Your task to perform on an android device: see sites visited before in the chrome app Image 0: 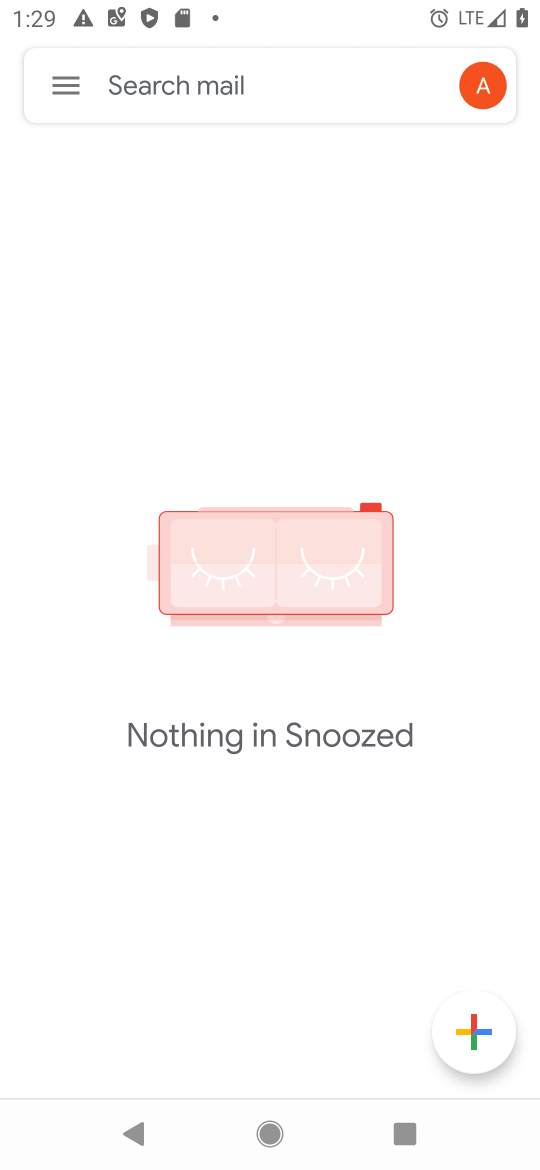
Step 0: press home button
Your task to perform on an android device: see sites visited before in the chrome app Image 1: 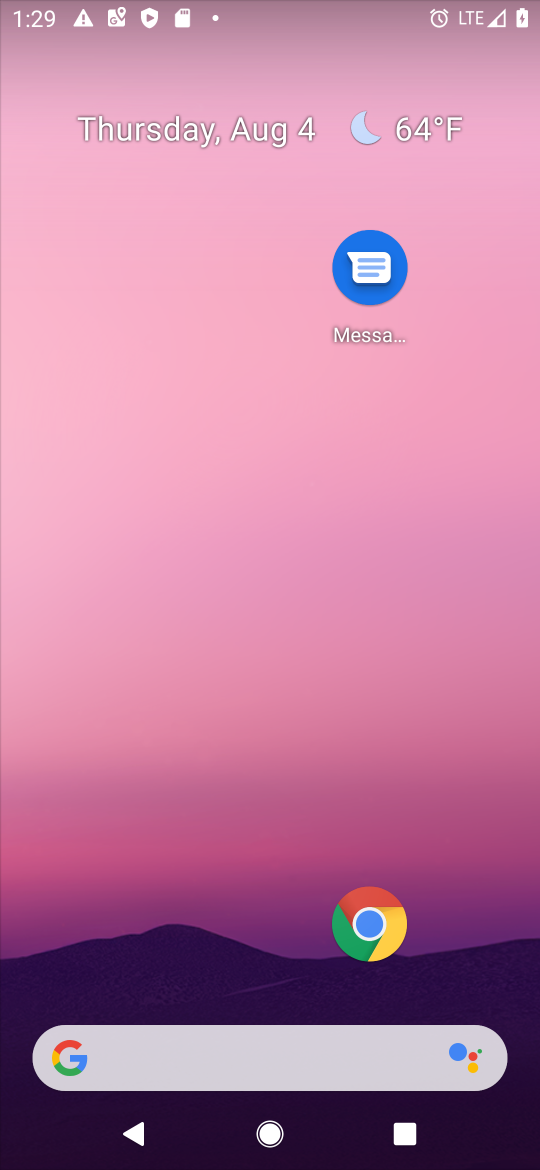
Step 1: click (350, 932)
Your task to perform on an android device: see sites visited before in the chrome app Image 2: 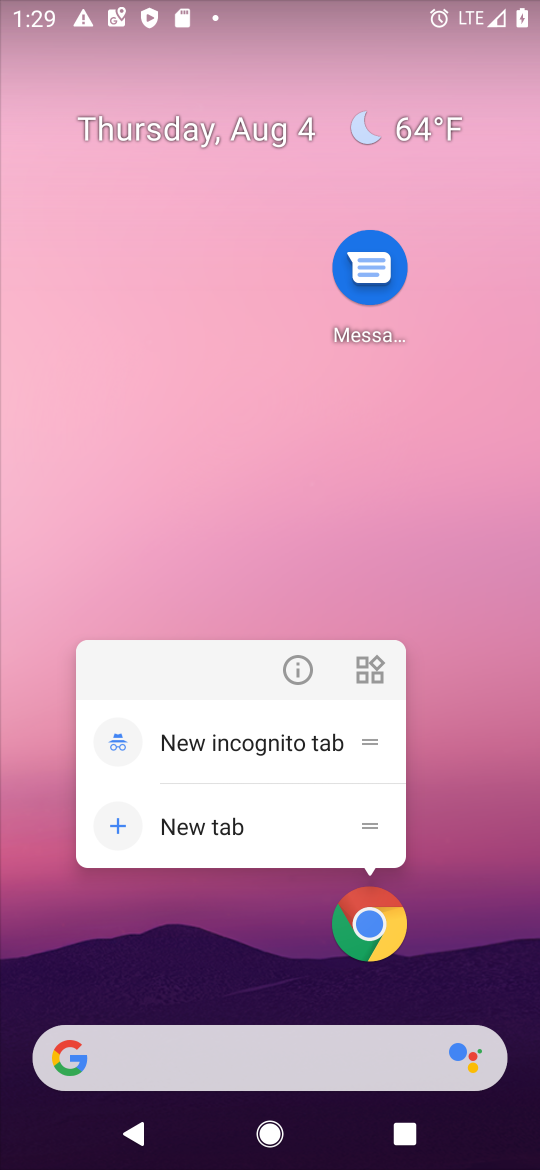
Step 2: click (353, 904)
Your task to perform on an android device: see sites visited before in the chrome app Image 3: 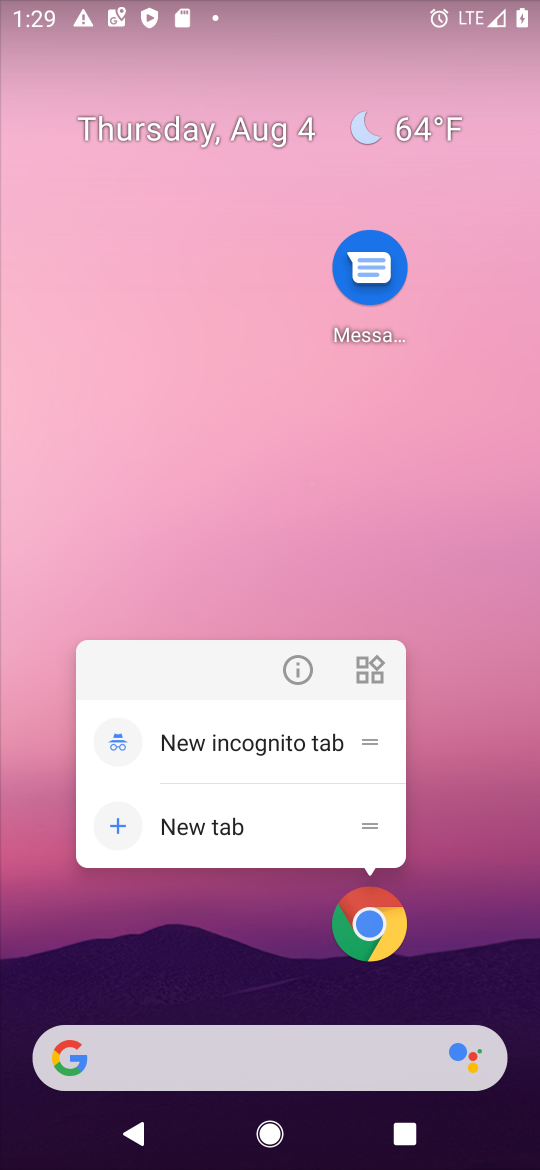
Step 3: click (345, 901)
Your task to perform on an android device: see sites visited before in the chrome app Image 4: 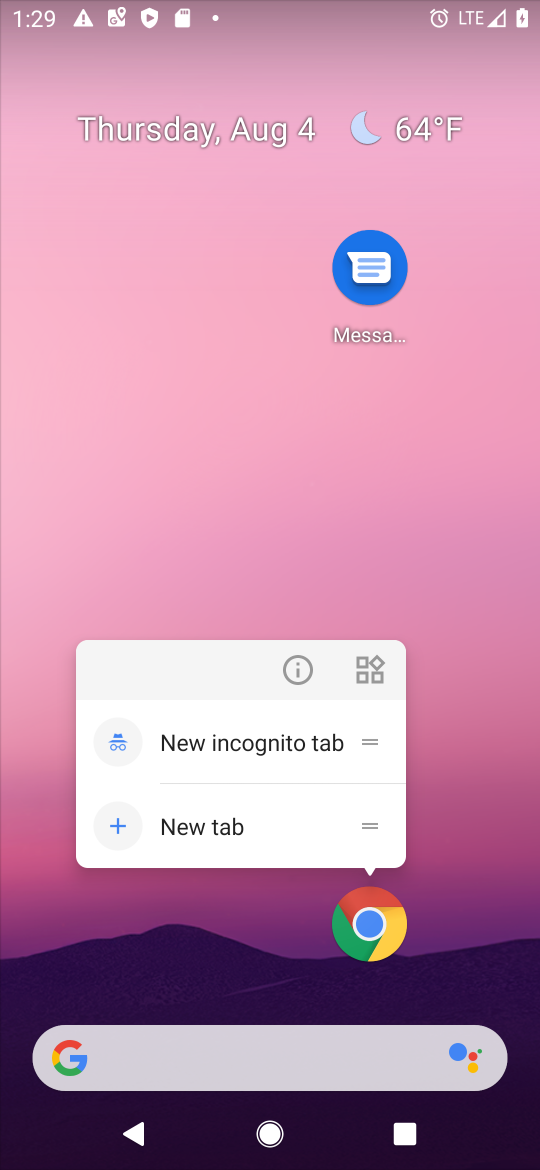
Step 4: click (371, 903)
Your task to perform on an android device: see sites visited before in the chrome app Image 5: 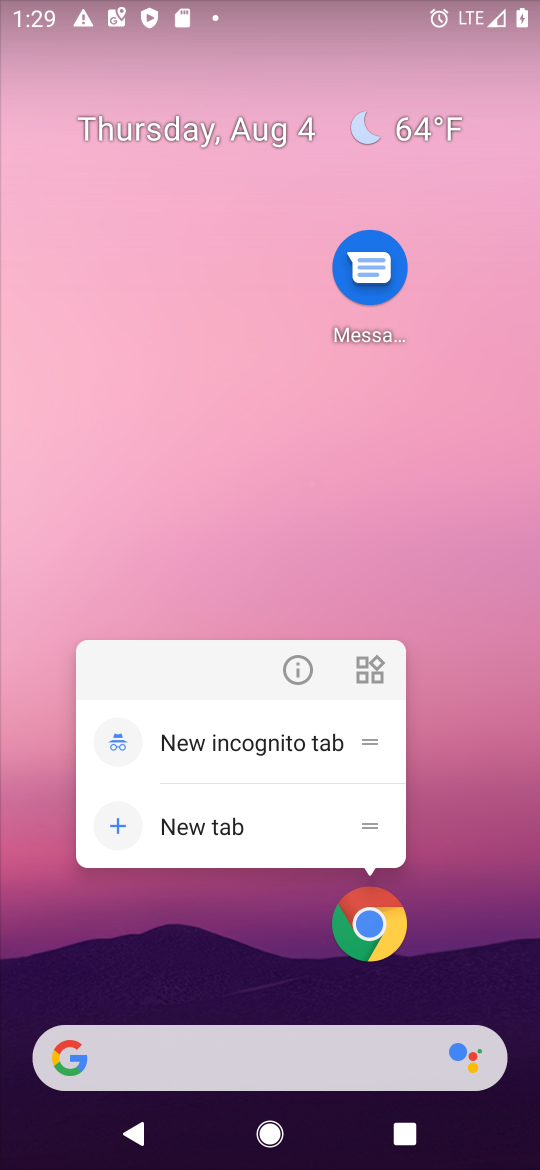
Step 5: click (366, 901)
Your task to perform on an android device: see sites visited before in the chrome app Image 6: 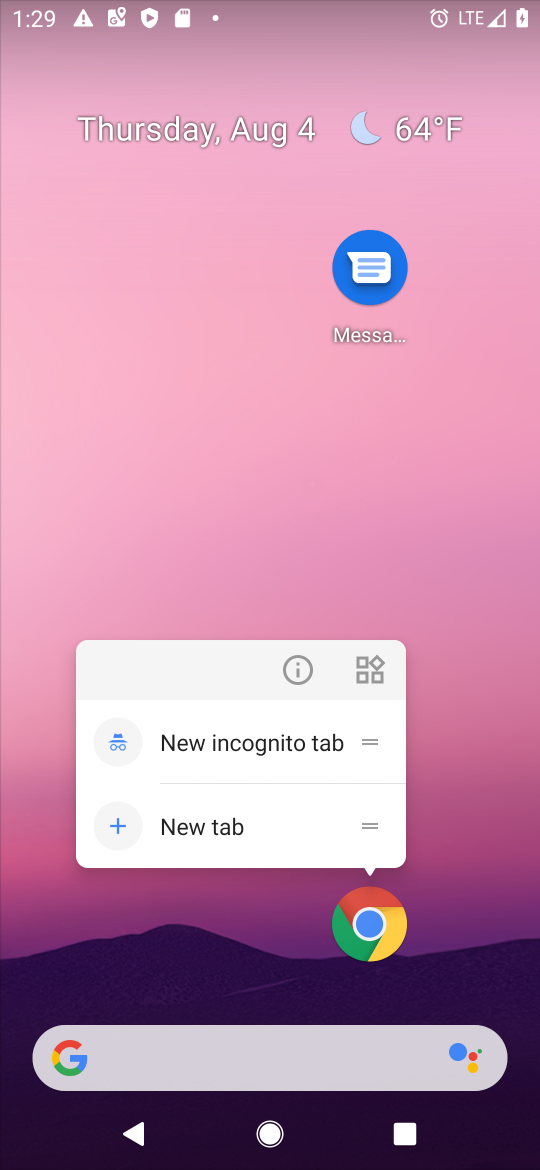
Step 6: click (387, 907)
Your task to perform on an android device: see sites visited before in the chrome app Image 7: 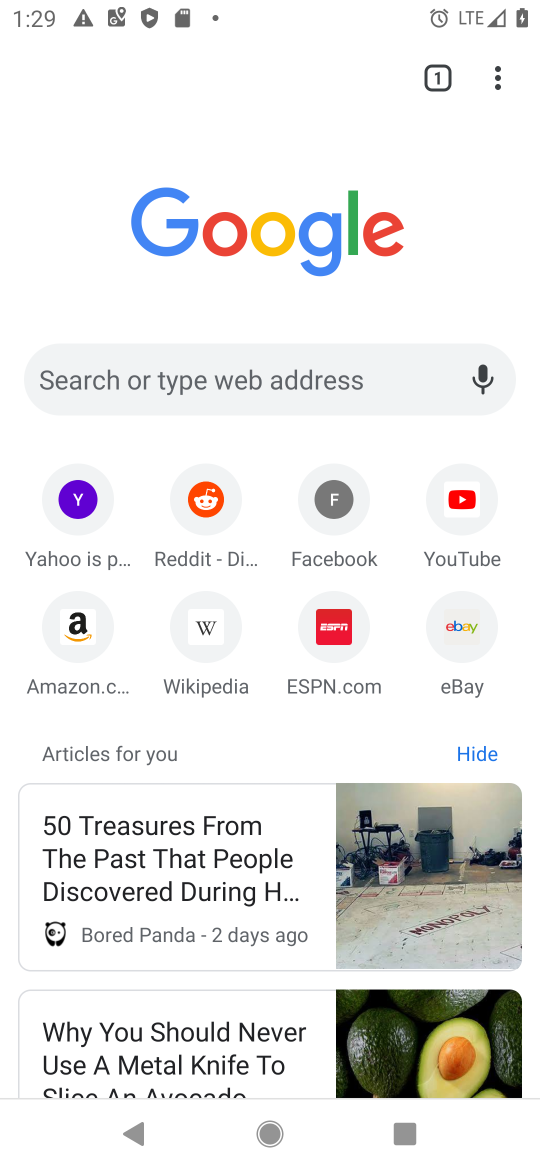
Step 7: click (503, 73)
Your task to perform on an android device: see sites visited before in the chrome app Image 8: 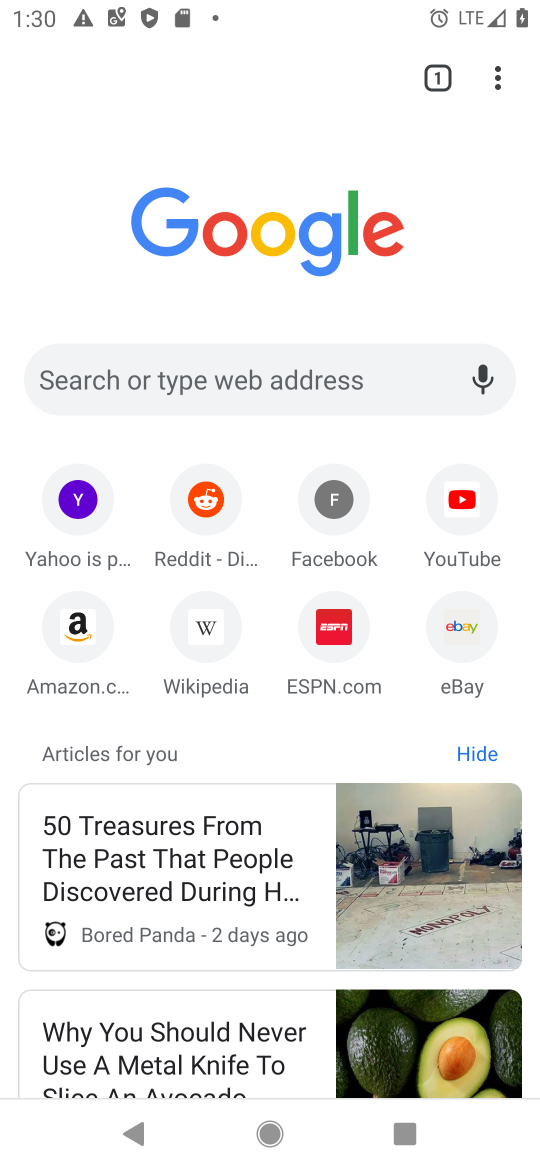
Step 8: click (500, 73)
Your task to perform on an android device: see sites visited before in the chrome app Image 9: 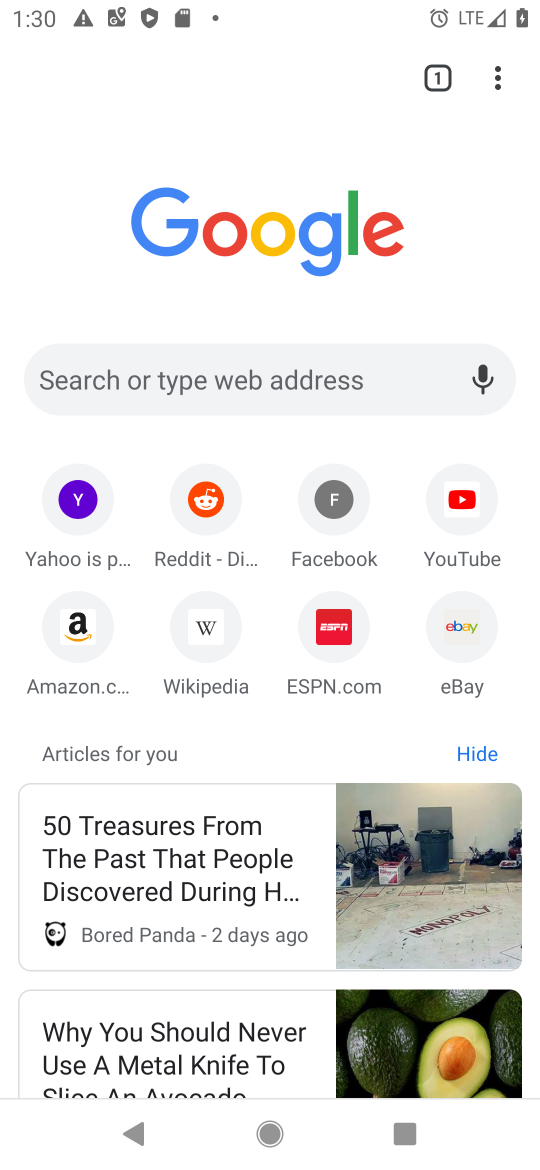
Step 9: click (501, 73)
Your task to perform on an android device: see sites visited before in the chrome app Image 10: 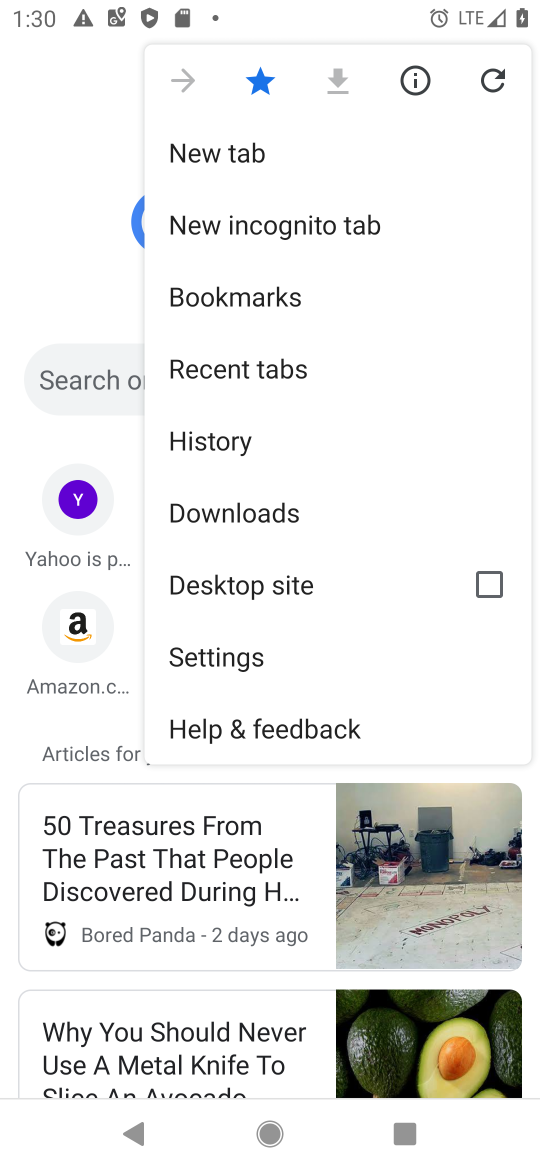
Step 10: click (193, 658)
Your task to perform on an android device: see sites visited before in the chrome app Image 11: 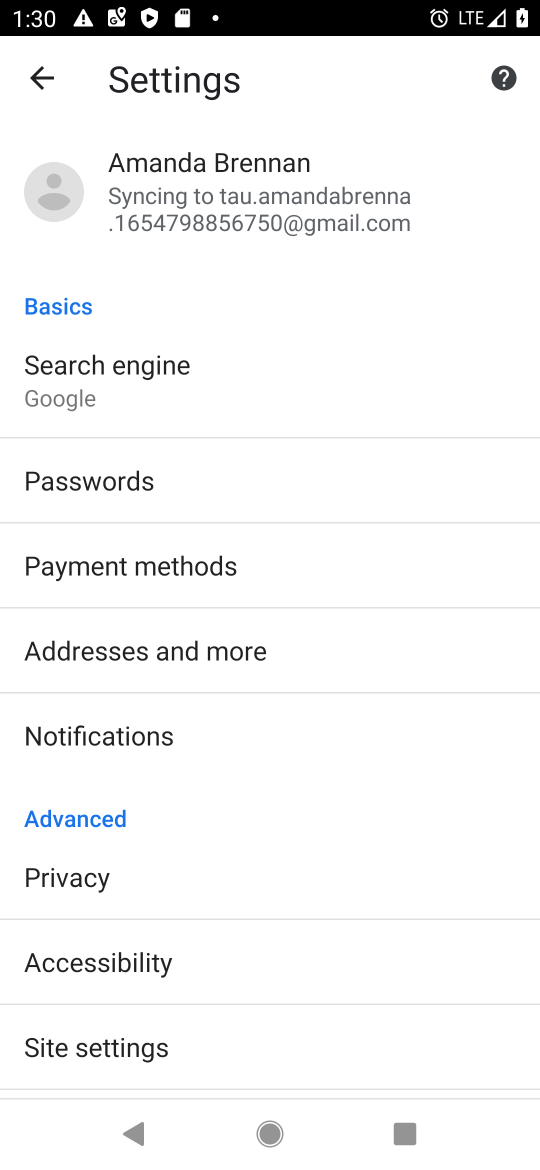
Step 11: click (100, 1034)
Your task to perform on an android device: see sites visited before in the chrome app Image 12: 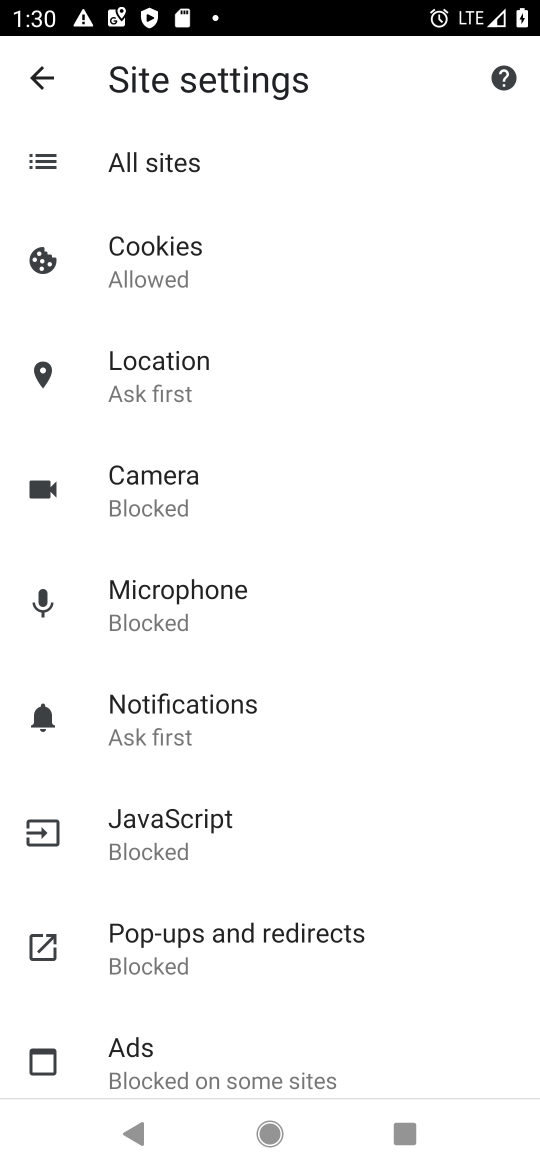
Step 12: task complete